Your task to perform on an android device: open chrome privacy settings Image 0: 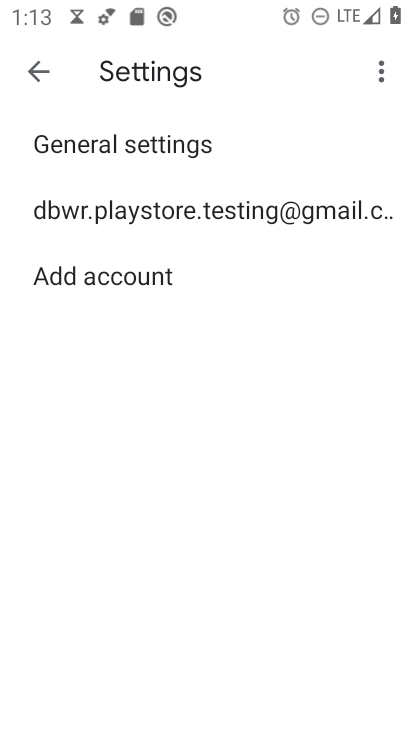
Step 0: press home button
Your task to perform on an android device: open chrome privacy settings Image 1: 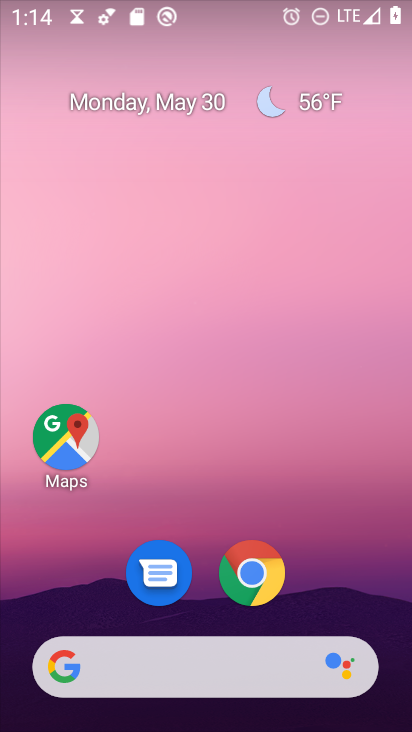
Step 1: drag from (265, 619) to (280, 147)
Your task to perform on an android device: open chrome privacy settings Image 2: 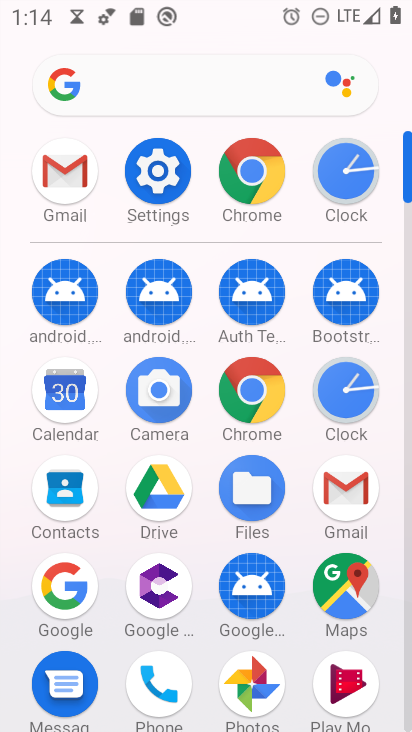
Step 2: click (263, 395)
Your task to perform on an android device: open chrome privacy settings Image 3: 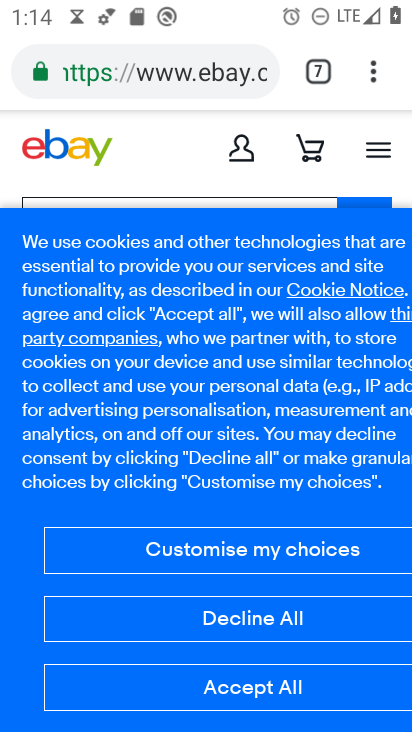
Step 3: drag from (372, 72) to (123, 558)
Your task to perform on an android device: open chrome privacy settings Image 4: 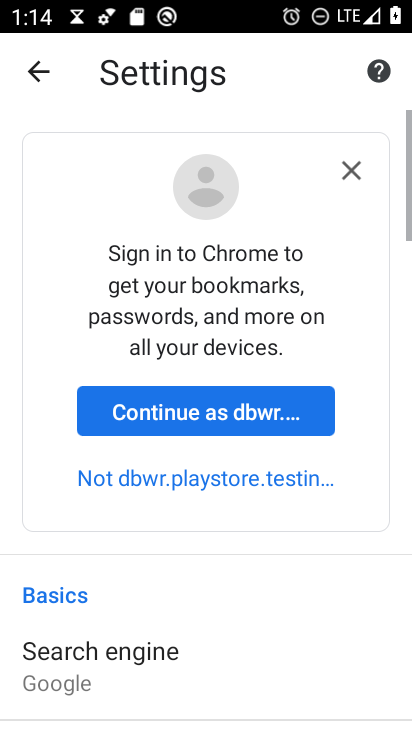
Step 4: drag from (274, 661) to (241, 153)
Your task to perform on an android device: open chrome privacy settings Image 5: 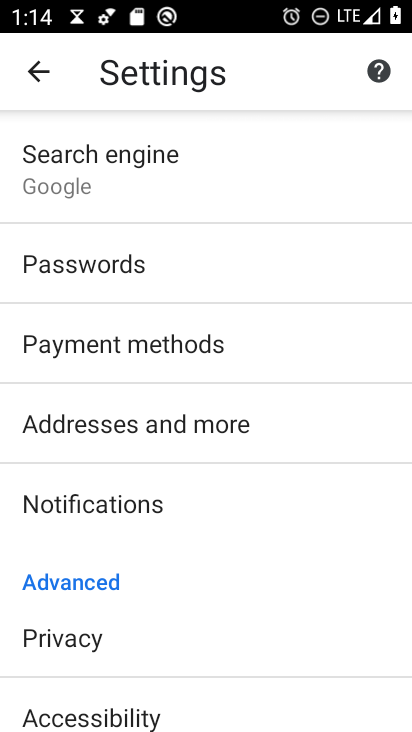
Step 5: click (110, 634)
Your task to perform on an android device: open chrome privacy settings Image 6: 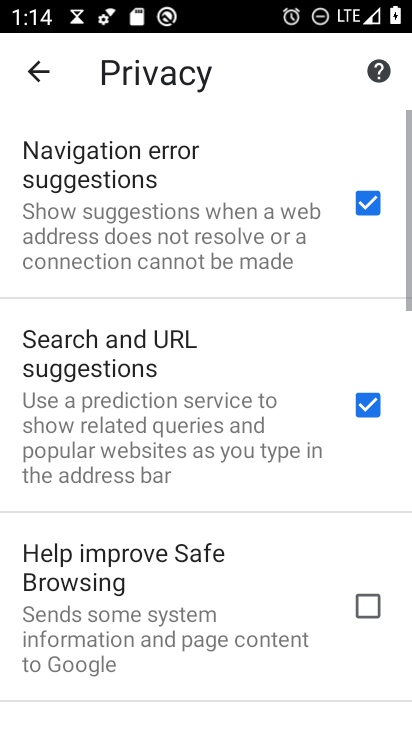
Step 6: task complete